Your task to perform on an android device: stop showing notifications on the lock screen Image 0: 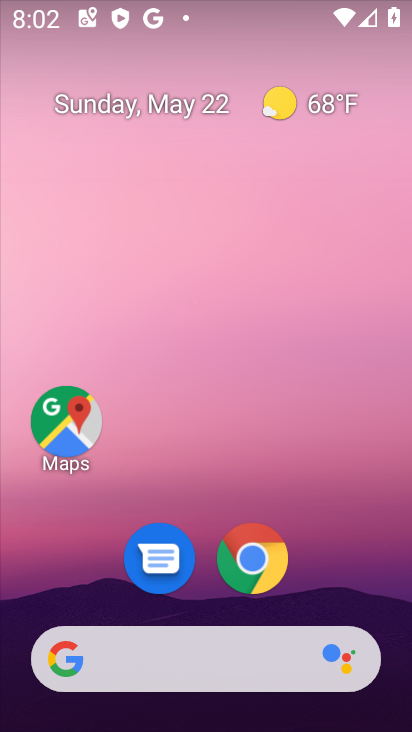
Step 0: drag from (319, 503) to (317, 329)
Your task to perform on an android device: stop showing notifications on the lock screen Image 1: 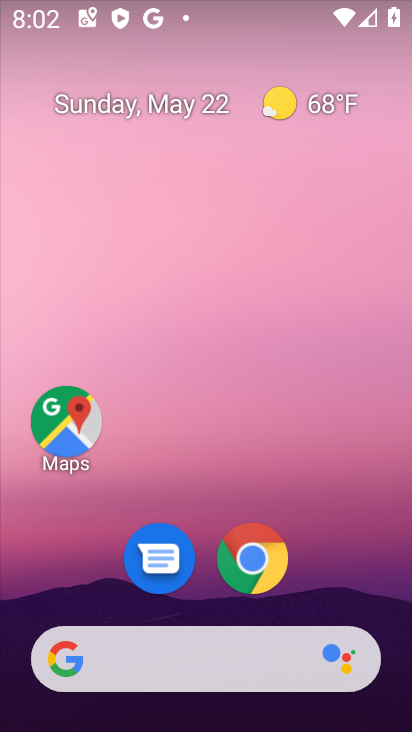
Step 1: drag from (270, 626) to (331, 137)
Your task to perform on an android device: stop showing notifications on the lock screen Image 2: 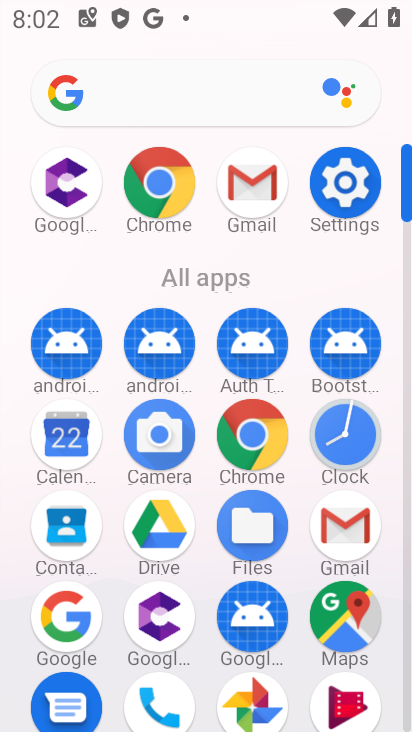
Step 2: click (362, 187)
Your task to perform on an android device: stop showing notifications on the lock screen Image 3: 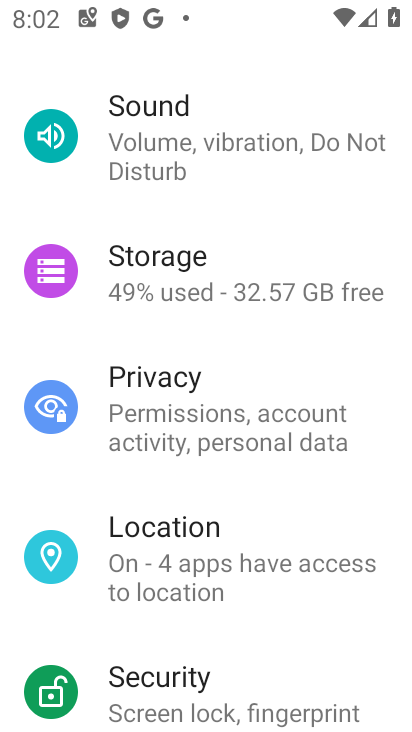
Step 3: drag from (235, 175) to (212, 672)
Your task to perform on an android device: stop showing notifications on the lock screen Image 4: 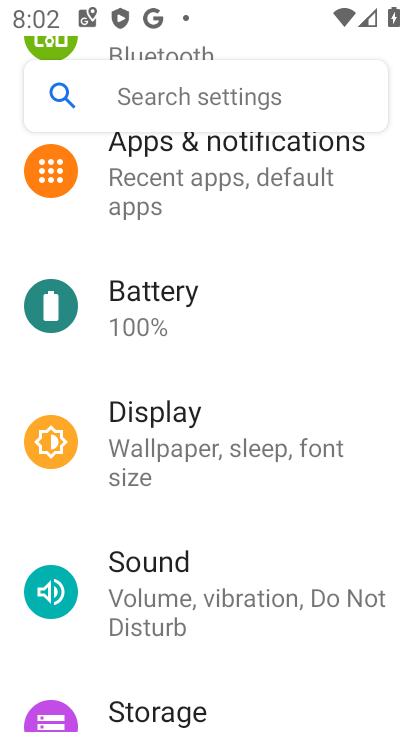
Step 4: drag from (222, 221) to (191, 577)
Your task to perform on an android device: stop showing notifications on the lock screen Image 5: 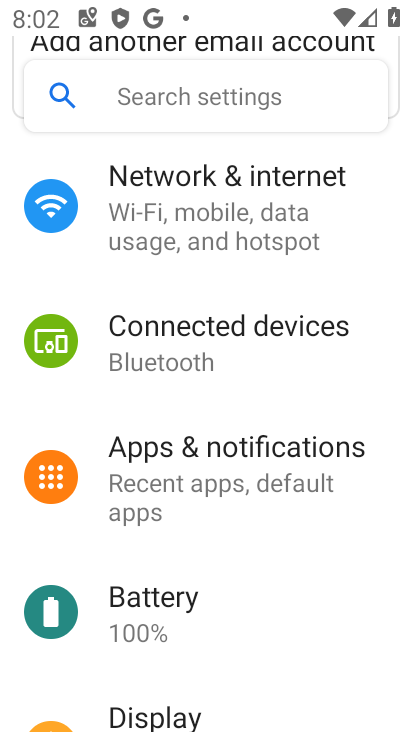
Step 5: click (194, 203)
Your task to perform on an android device: stop showing notifications on the lock screen Image 6: 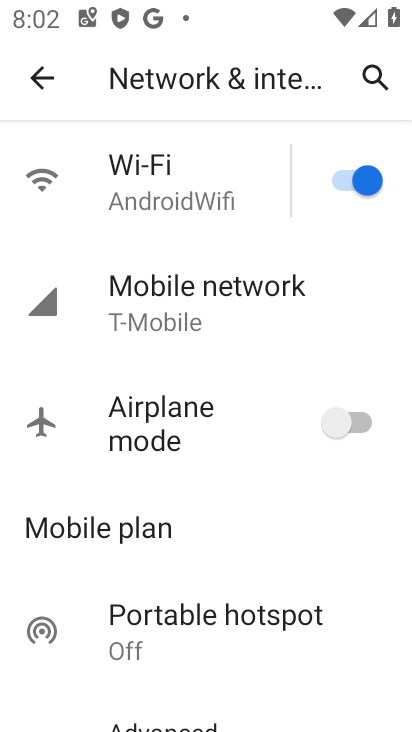
Step 6: click (64, 97)
Your task to perform on an android device: stop showing notifications on the lock screen Image 7: 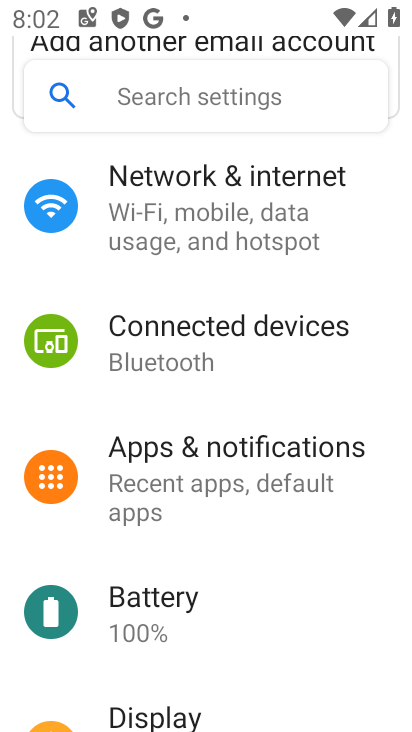
Step 7: click (225, 474)
Your task to perform on an android device: stop showing notifications on the lock screen Image 8: 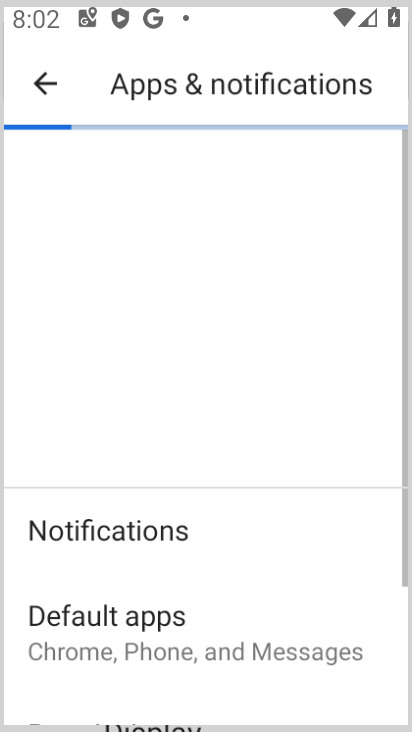
Step 8: click (137, 447)
Your task to perform on an android device: stop showing notifications on the lock screen Image 9: 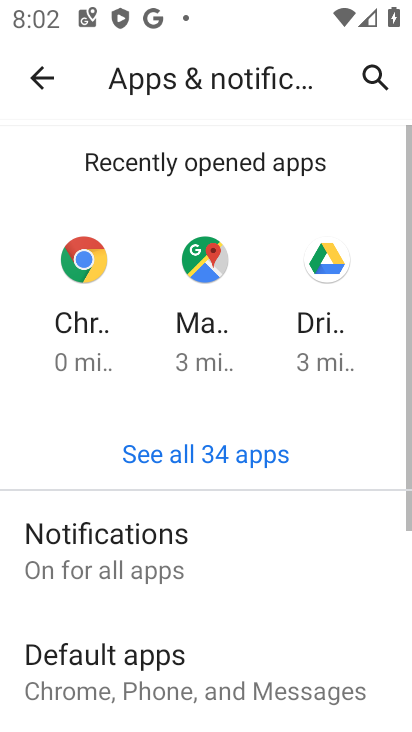
Step 9: drag from (195, 539) to (199, 485)
Your task to perform on an android device: stop showing notifications on the lock screen Image 10: 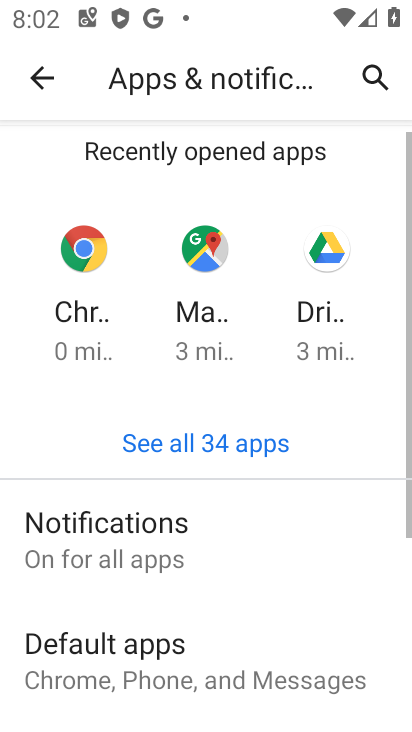
Step 10: click (150, 525)
Your task to perform on an android device: stop showing notifications on the lock screen Image 11: 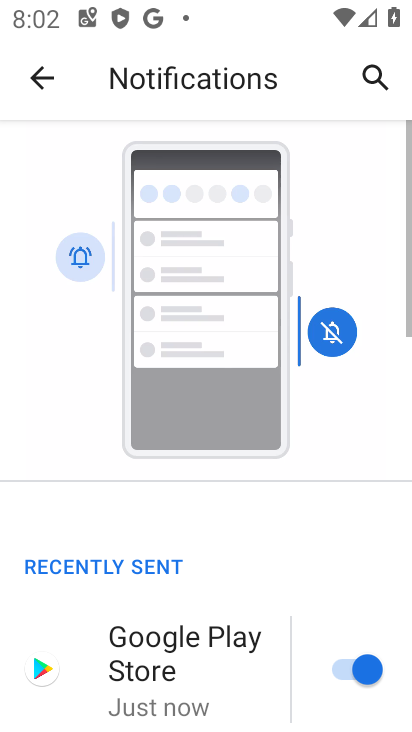
Step 11: drag from (180, 451) to (273, 106)
Your task to perform on an android device: stop showing notifications on the lock screen Image 12: 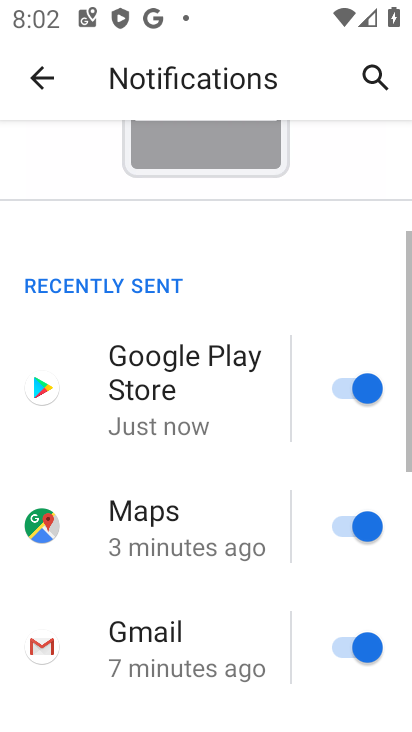
Step 12: drag from (200, 567) to (292, 148)
Your task to perform on an android device: stop showing notifications on the lock screen Image 13: 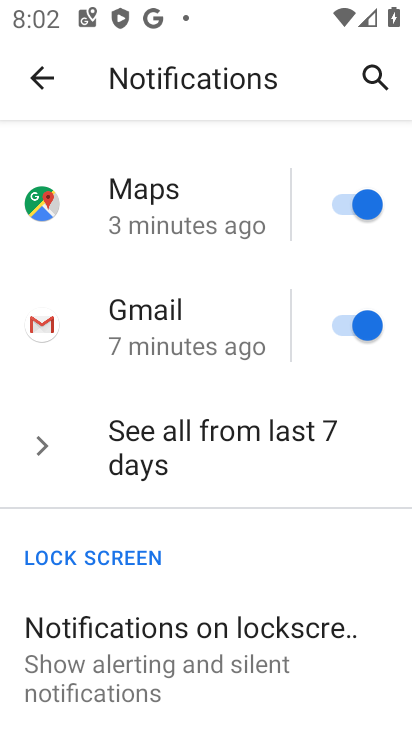
Step 13: click (65, 597)
Your task to perform on an android device: stop showing notifications on the lock screen Image 14: 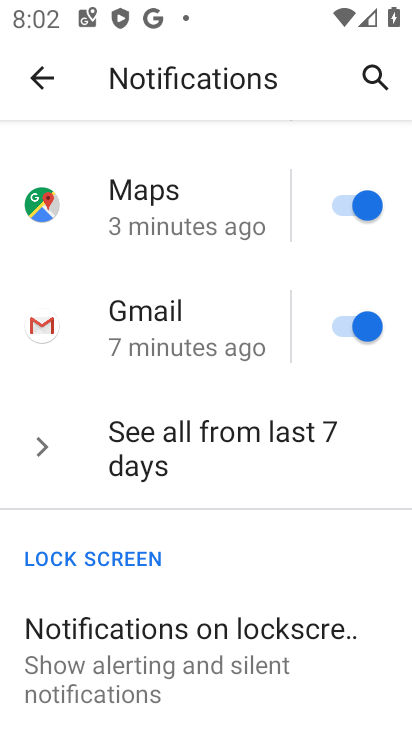
Step 14: drag from (209, 591) to (261, 340)
Your task to perform on an android device: stop showing notifications on the lock screen Image 15: 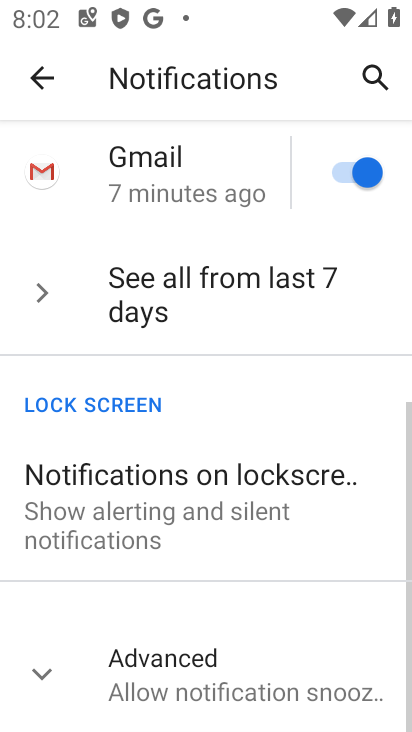
Step 15: click (119, 554)
Your task to perform on an android device: stop showing notifications on the lock screen Image 16: 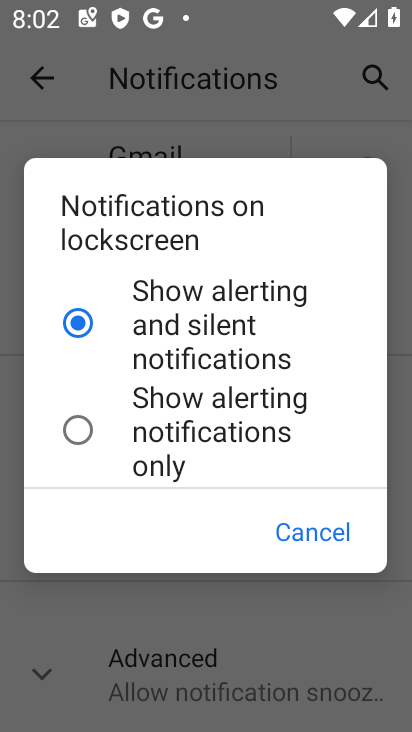
Step 16: drag from (207, 447) to (219, 259)
Your task to perform on an android device: stop showing notifications on the lock screen Image 17: 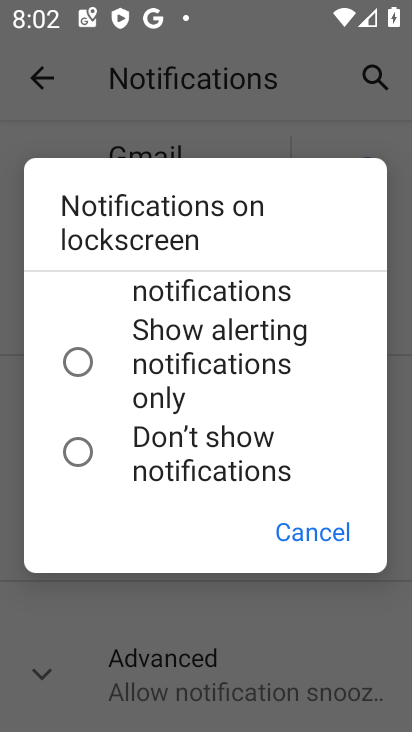
Step 17: click (108, 470)
Your task to perform on an android device: stop showing notifications on the lock screen Image 18: 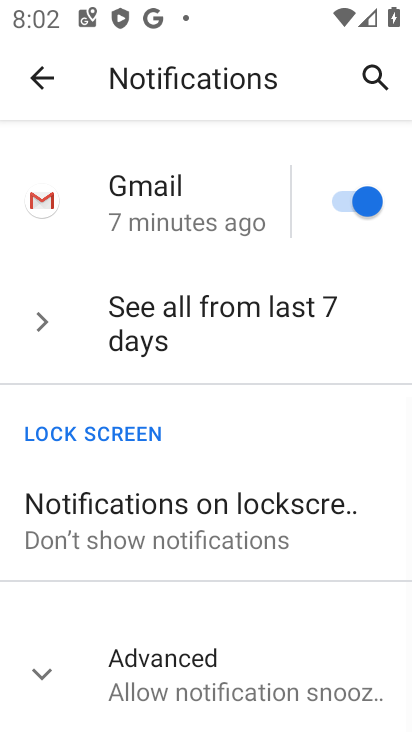
Step 18: task complete